Your task to perform on an android device: Go to settings Image 0: 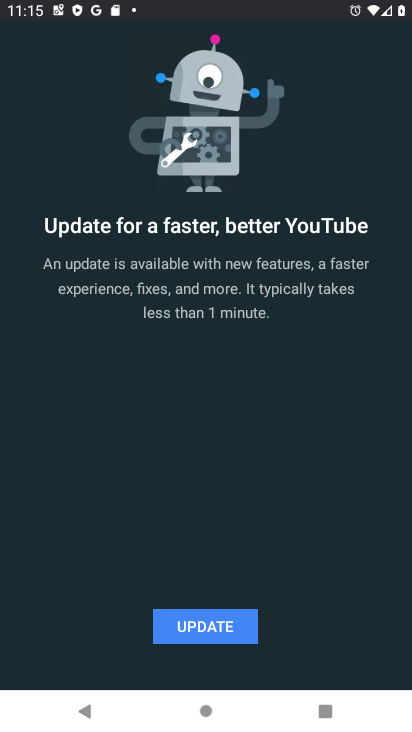
Step 0: press home button
Your task to perform on an android device: Go to settings Image 1: 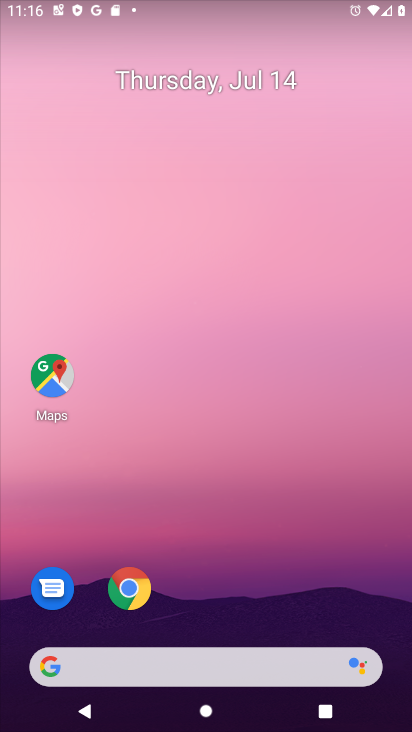
Step 1: drag from (252, 614) to (243, 106)
Your task to perform on an android device: Go to settings Image 2: 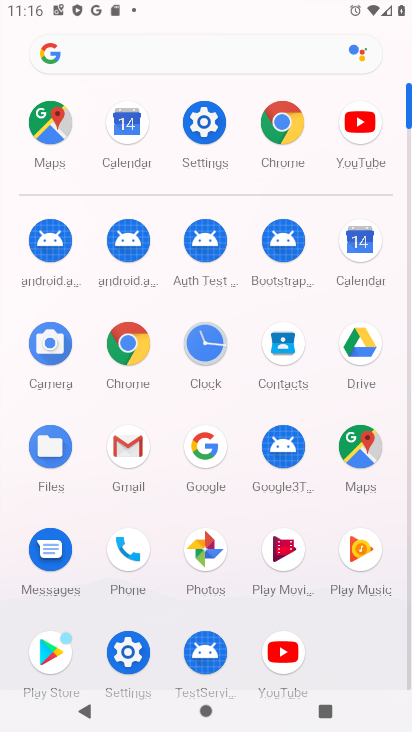
Step 2: click (231, 136)
Your task to perform on an android device: Go to settings Image 3: 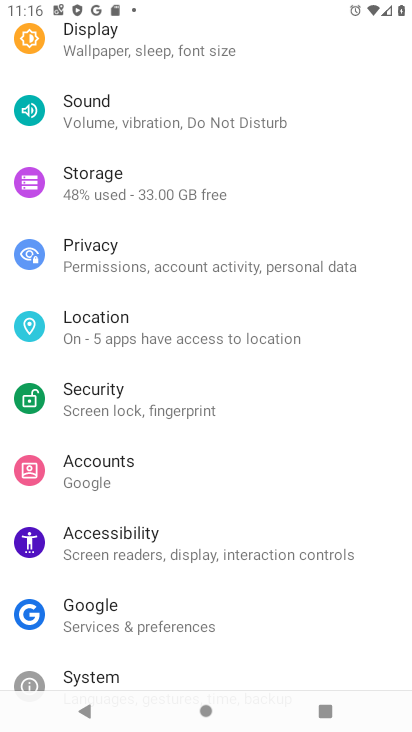
Step 3: task complete